Your task to perform on an android device: turn off priority inbox in the gmail app Image 0: 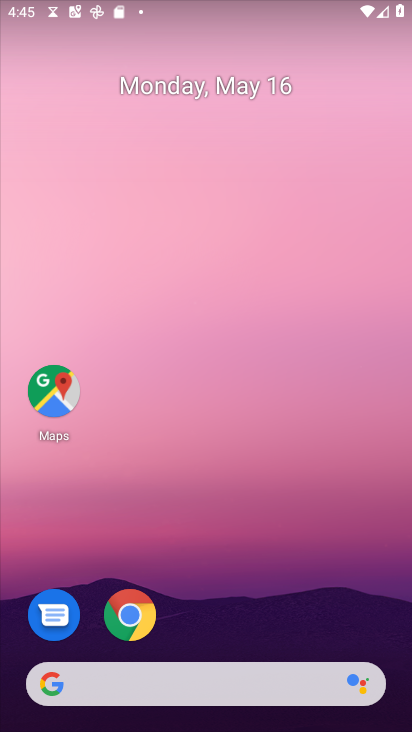
Step 0: drag from (251, 622) to (359, 115)
Your task to perform on an android device: turn off priority inbox in the gmail app Image 1: 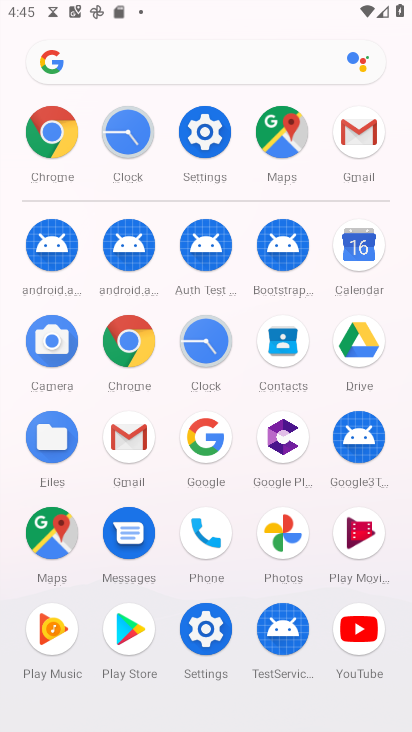
Step 1: click (360, 149)
Your task to perform on an android device: turn off priority inbox in the gmail app Image 2: 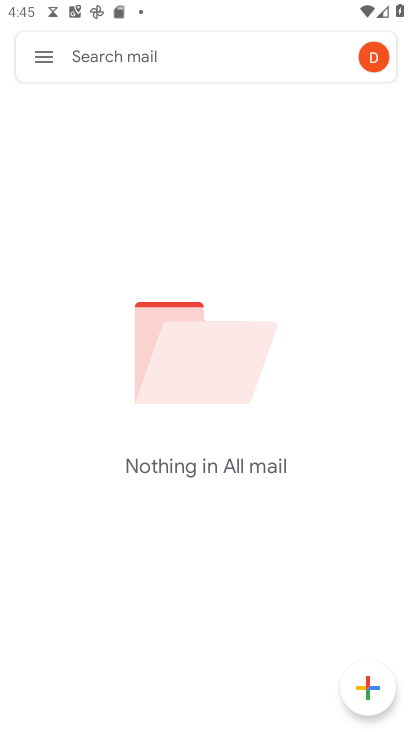
Step 2: click (50, 57)
Your task to perform on an android device: turn off priority inbox in the gmail app Image 3: 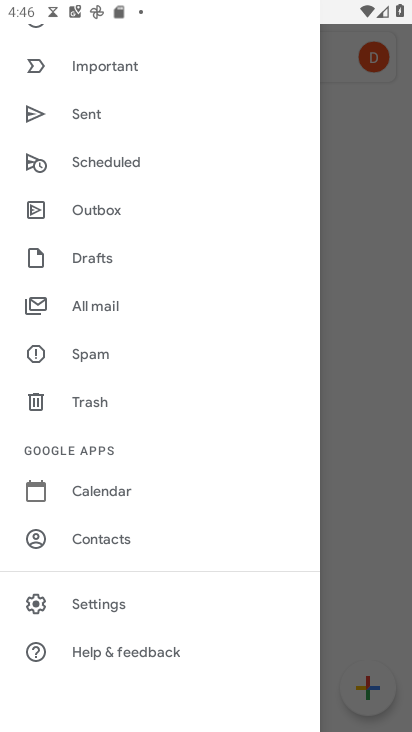
Step 3: click (107, 608)
Your task to perform on an android device: turn off priority inbox in the gmail app Image 4: 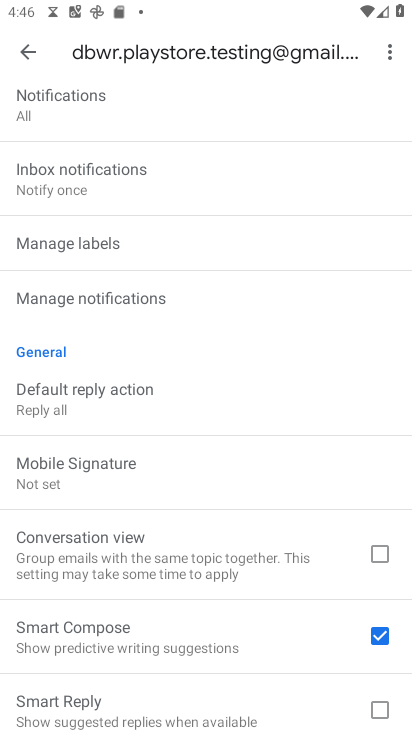
Step 4: drag from (132, 242) to (53, 633)
Your task to perform on an android device: turn off priority inbox in the gmail app Image 5: 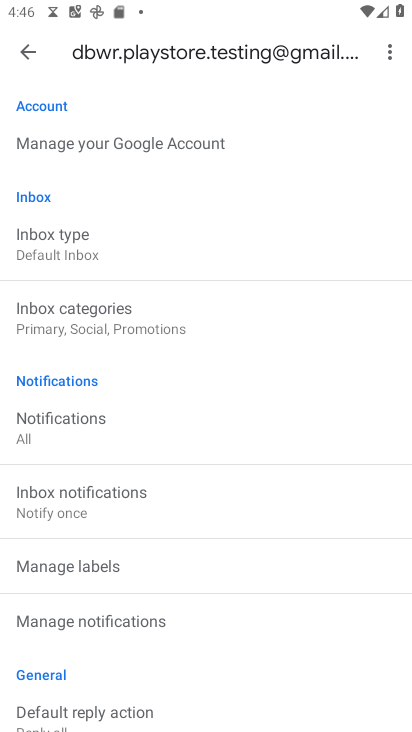
Step 5: click (75, 239)
Your task to perform on an android device: turn off priority inbox in the gmail app Image 6: 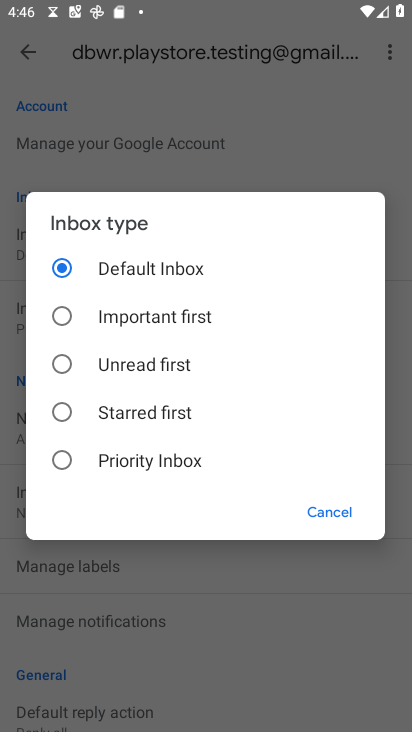
Step 6: click (66, 467)
Your task to perform on an android device: turn off priority inbox in the gmail app Image 7: 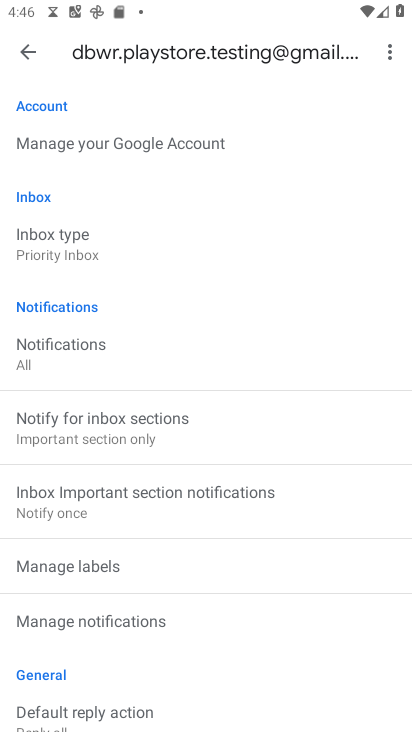
Step 7: task complete